Your task to perform on an android device: check out phone information Image 0: 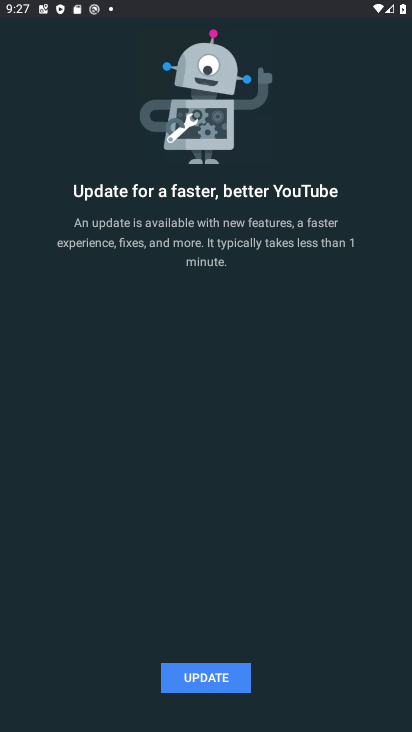
Step 0: press home button
Your task to perform on an android device: check out phone information Image 1: 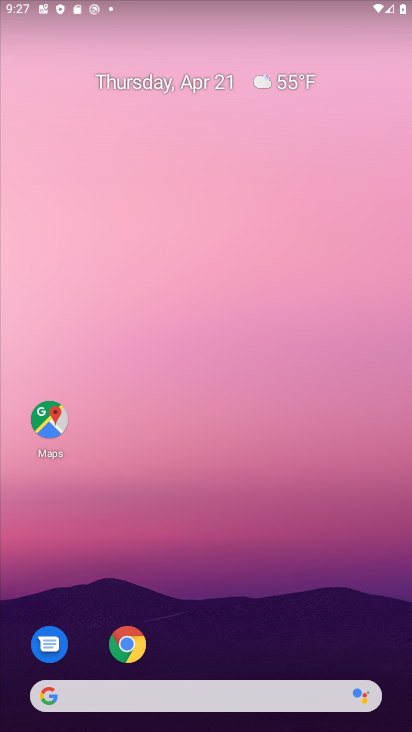
Step 1: drag from (295, 606) to (302, 135)
Your task to perform on an android device: check out phone information Image 2: 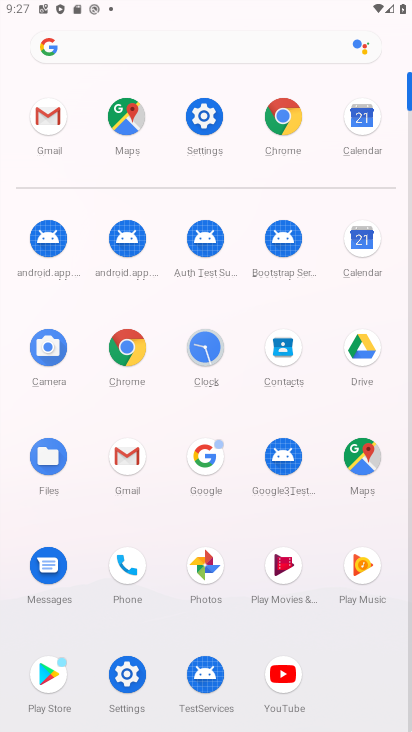
Step 2: drag from (128, 557) to (161, 535)
Your task to perform on an android device: check out phone information Image 3: 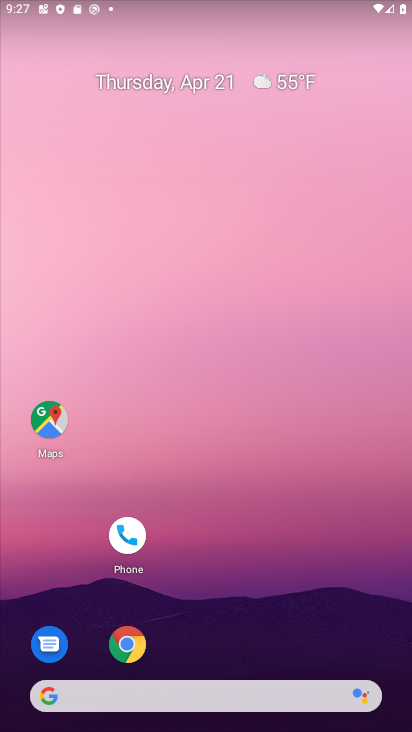
Step 3: click (137, 539)
Your task to perform on an android device: check out phone information Image 4: 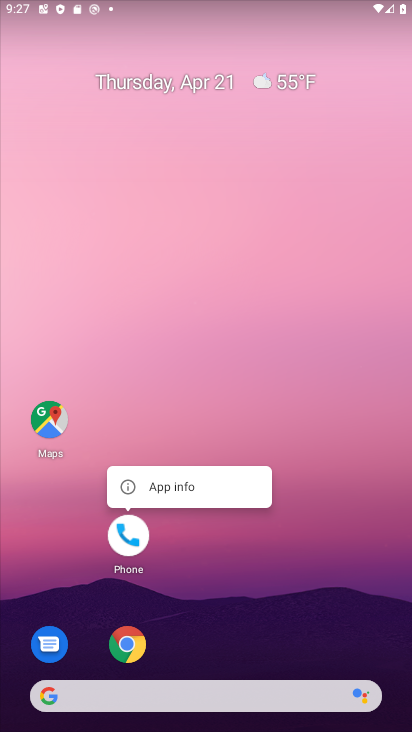
Step 4: click (149, 489)
Your task to perform on an android device: check out phone information Image 5: 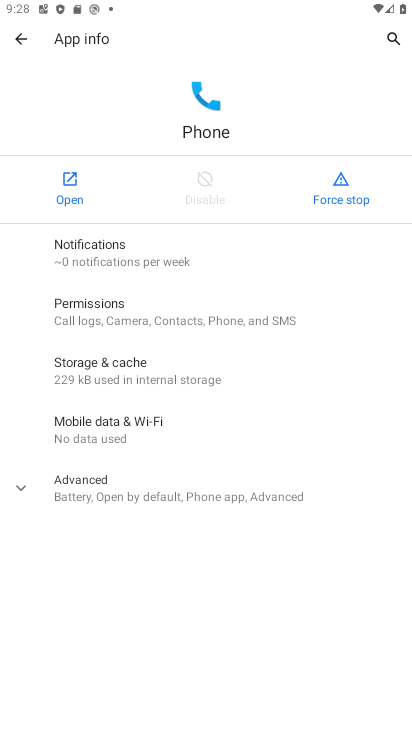
Step 5: task complete